Your task to perform on an android device: turn off sleep mode Image 0: 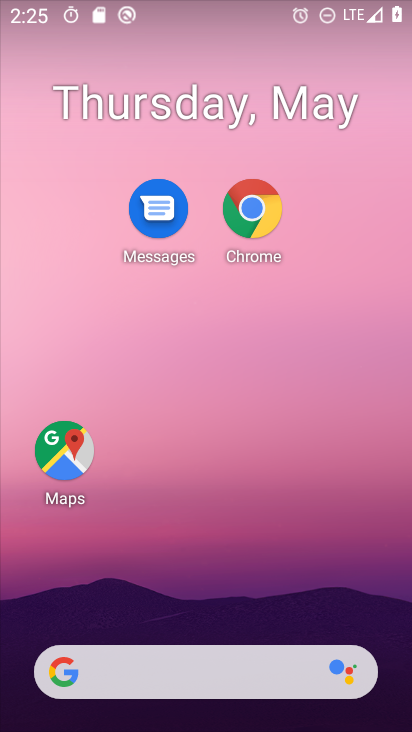
Step 0: drag from (212, 595) to (266, 117)
Your task to perform on an android device: turn off sleep mode Image 1: 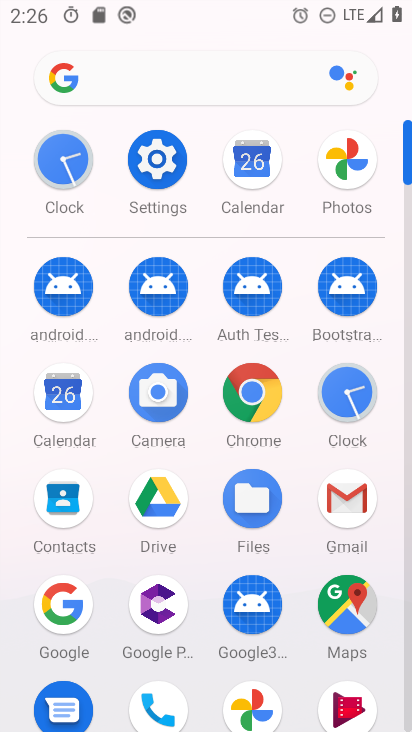
Step 1: click (150, 172)
Your task to perform on an android device: turn off sleep mode Image 2: 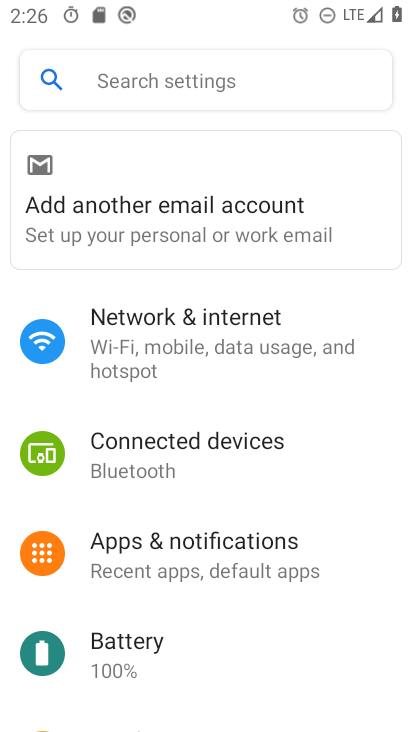
Step 2: task complete